Your task to perform on an android device: Open Youtube and go to "Your channel" Image 0: 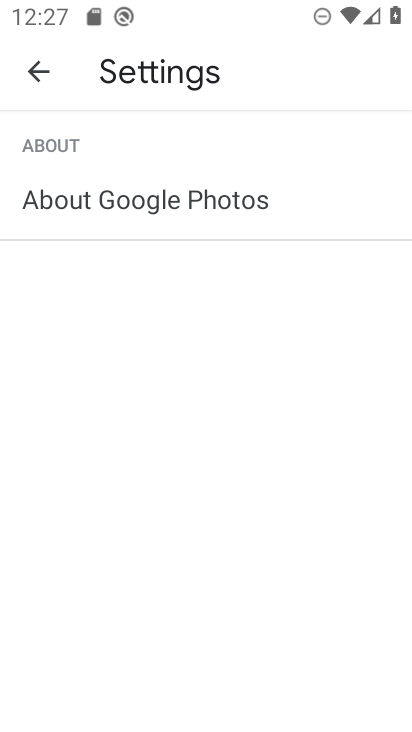
Step 0: press home button
Your task to perform on an android device: Open Youtube and go to "Your channel" Image 1: 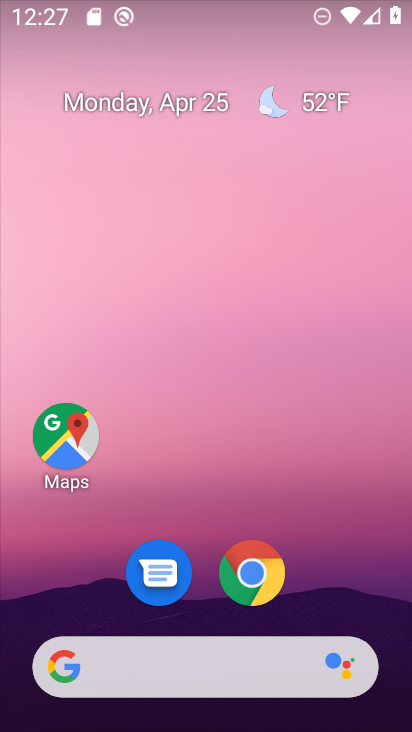
Step 1: drag from (212, 679) to (185, 253)
Your task to perform on an android device: Open Youtube and go to "Your channel" Image 2: 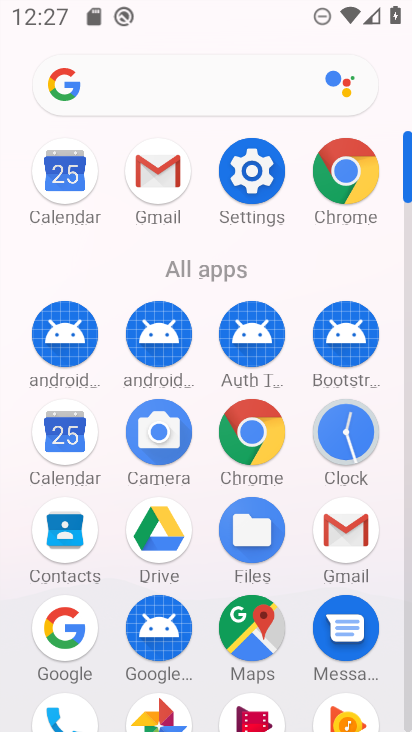
Step 2: drag from (296, 701) to (297, 173)
Your task to perform on an android device: Open Youtube and go to "Your channel" Image 3: 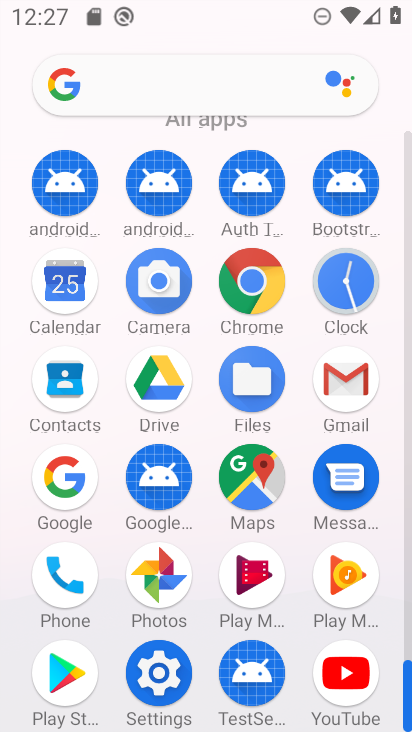
Step 3: click (350, 659)
Your task to perform on an android device: Open Youtube and go to "Your channel" Image 4: 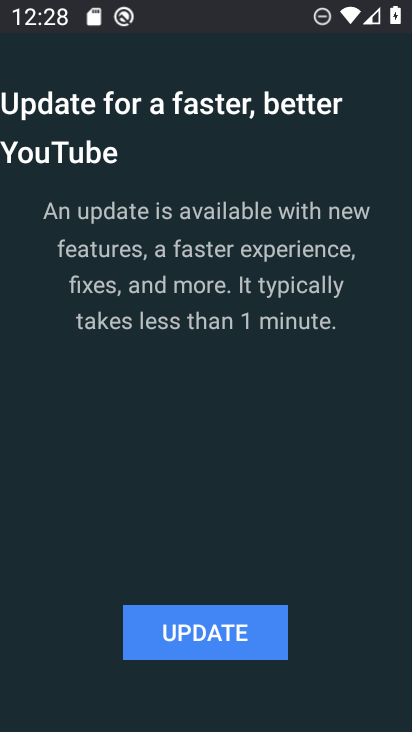
Step 4: task complete